Your task to perform on an android device: change your default location settings in chrome Image 0: 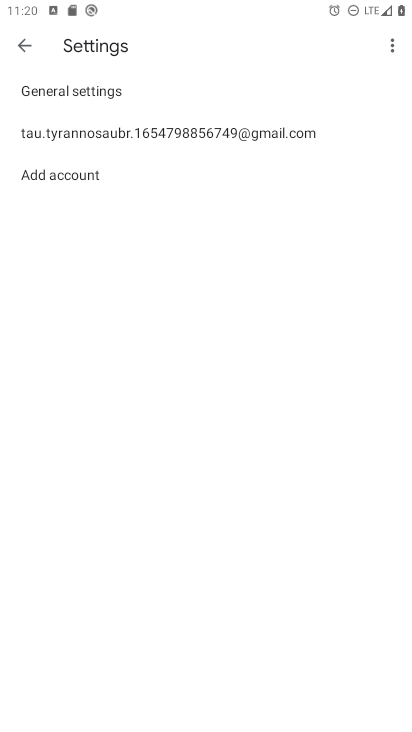
Step 0: press home button
Your task to perform on an android device: change your default location settings in chrome Image 1: 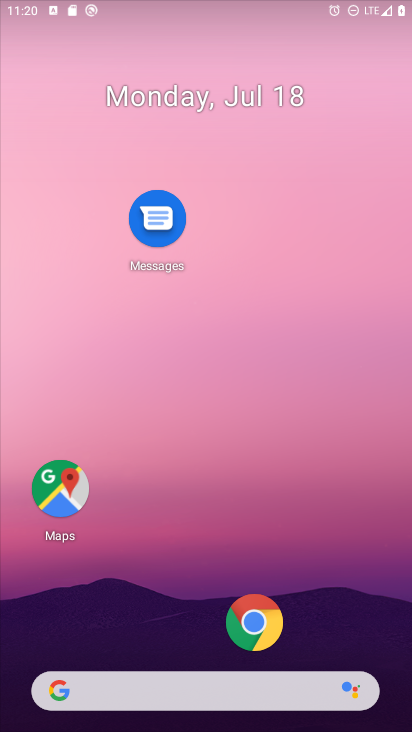
Step 1: drag from (239, 560) to (231, 231)
Your task to perform on an android device: change your default location settings in chrome Image 2: 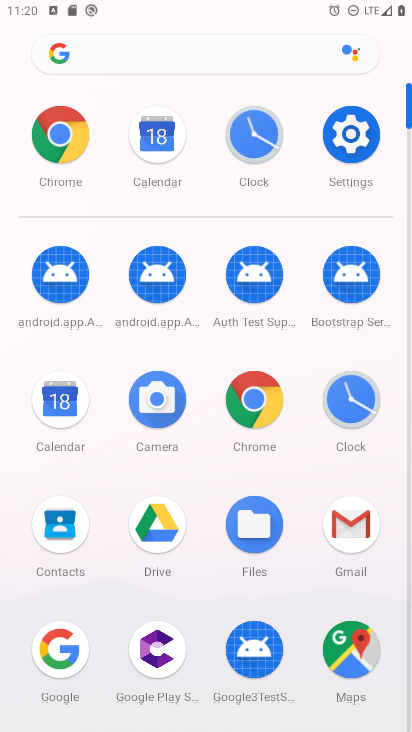
Step 2: click (260, 403)
Your task to perform on an android device: change your default location settings in chrome Image 3: 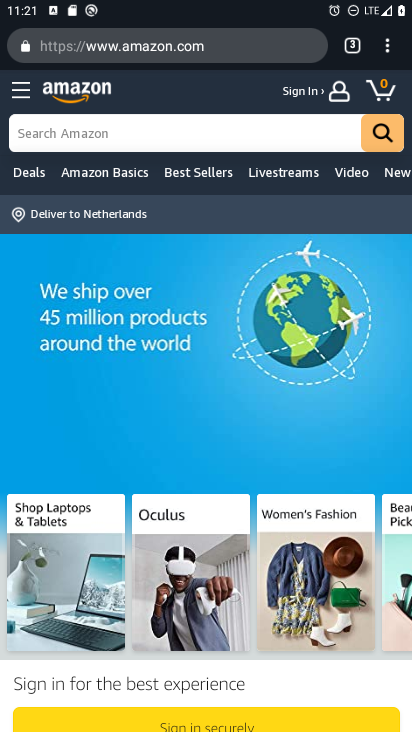
Step 3: click (382, 52)
Your task to perform on an android device: change your default location settings in chrome Image 4: 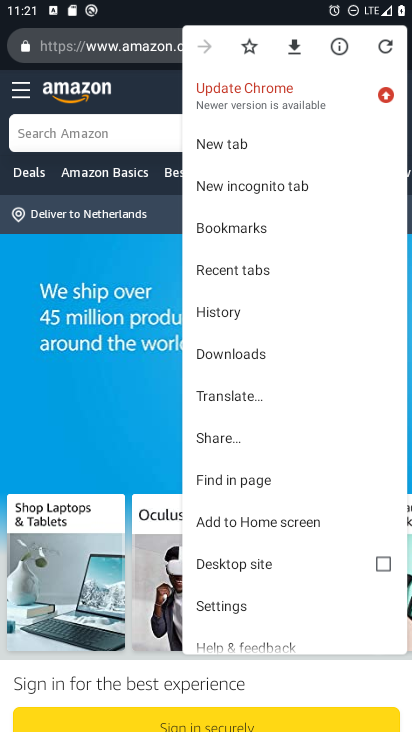
Step 4: click (238, 604)
Your task to perform on an android device: change your default location settings in chrome Image 5: 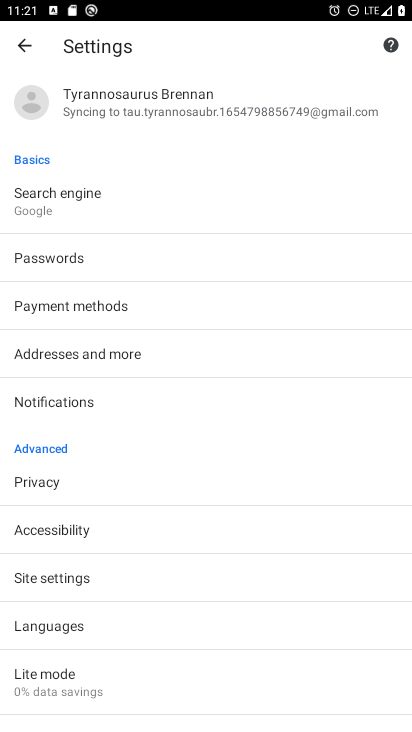
Step 5: click (82, 583)
Your task to perform on an android device: change your default location settings in chrome Image 6: 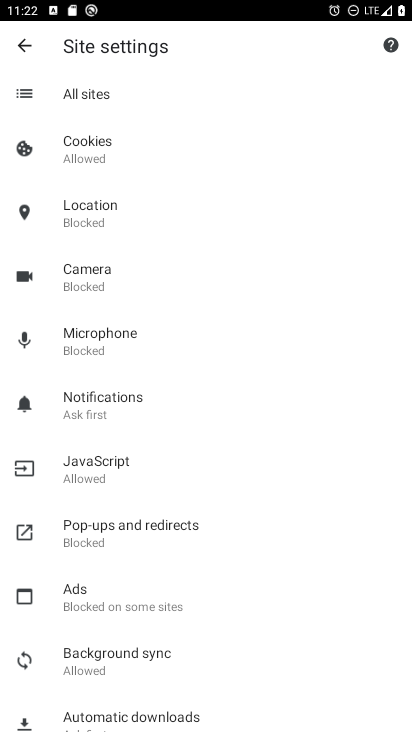
Step 6: click (88, 207)
Your task to perform on an android device: change your default location settings in chrome Image 7: 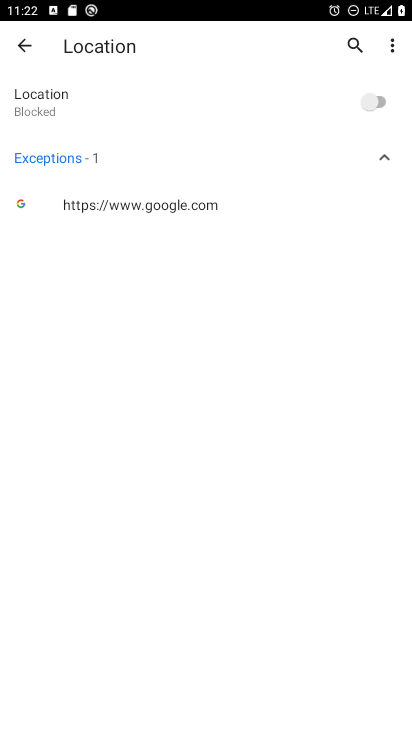
Step 7: click (384, 106)
Your task to perform on an android device: change your default location settings in chrome Image 8: 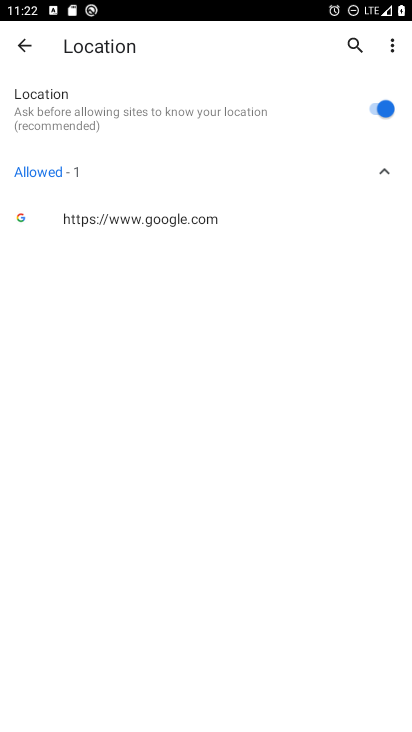
Step 8: task complete